Your task to perform on an android device: Open maps Image 0: 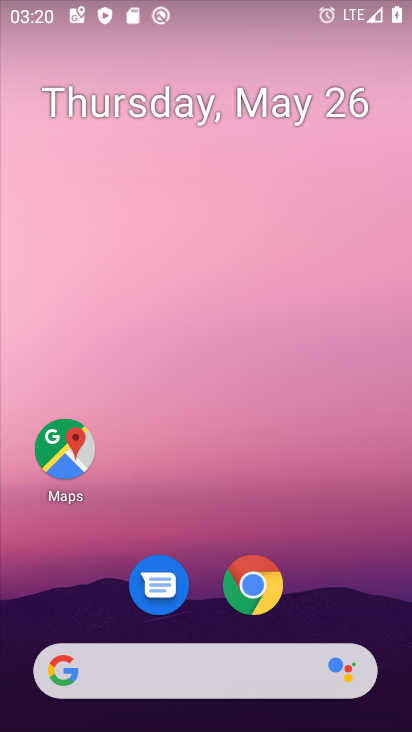
Step 0: click (67, 451)
Your task to perform on an android device: Open maps Image 1: 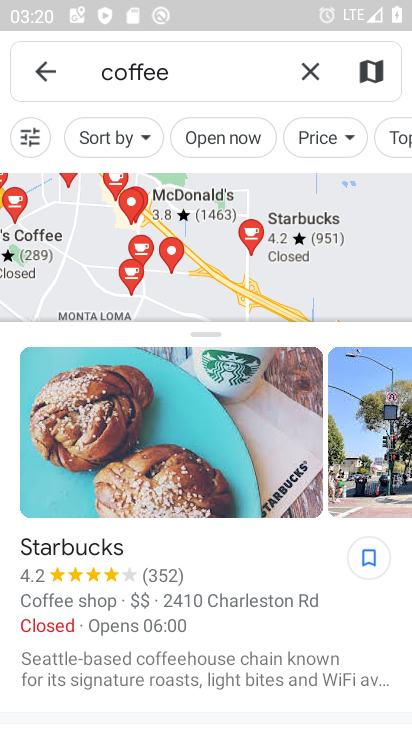
Step 1: click (310, 68)
Your task to perform on an android device: Open maps Image 2: 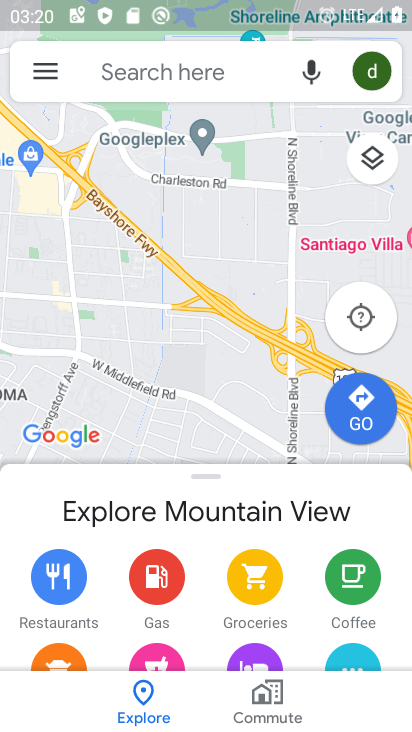
Step 2: task complete